Your task to perform on an android device: Go to battery settings Image 0: 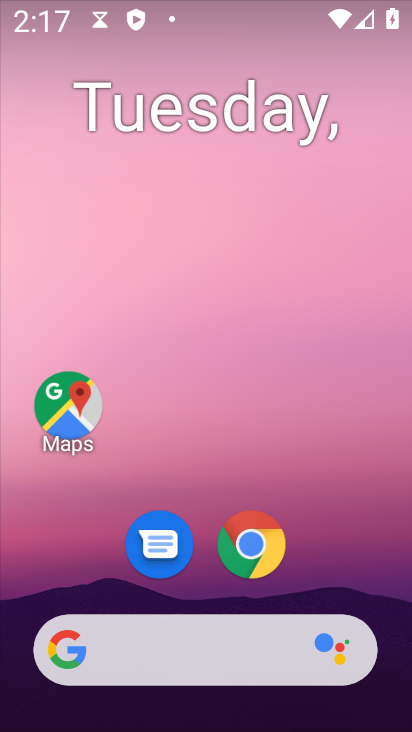
Step 0: drag from (316, 551) to (284, 8)
Your task to perform on an android device: Go to battery settings Image 1: 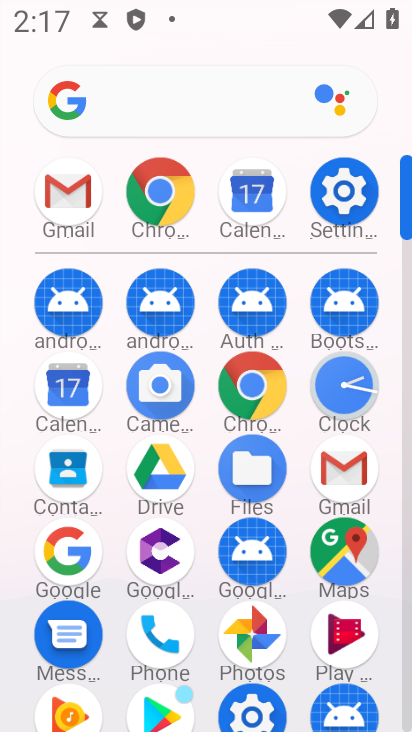
Step 1: drag from (13, 562) to (13, 303)
Your task to perform on an android device: Go to battery settings Image 2: 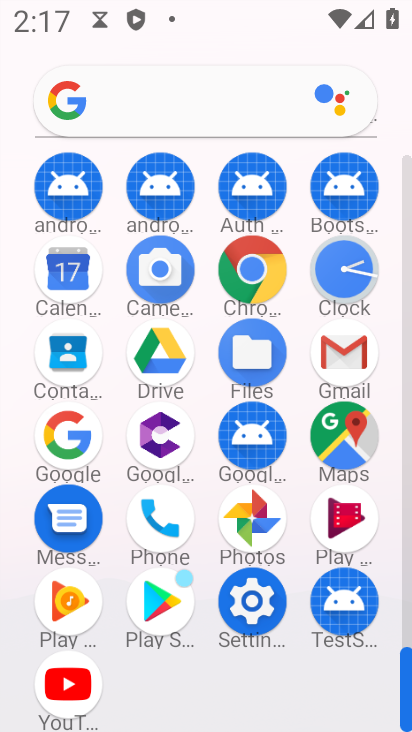
Step 2: click (253, 597)
Your task to perform on an android device: Go to battery settings Image 3: 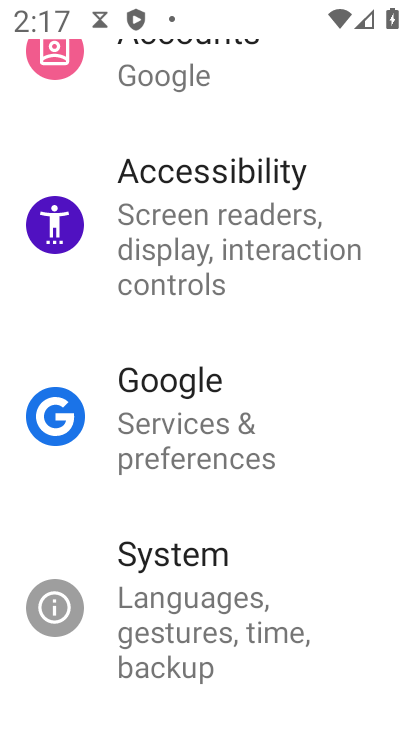
Step 3: drag from (266, 197) to (262, 633)
Your task to perform on an android device: Go to battery settings Image 4: 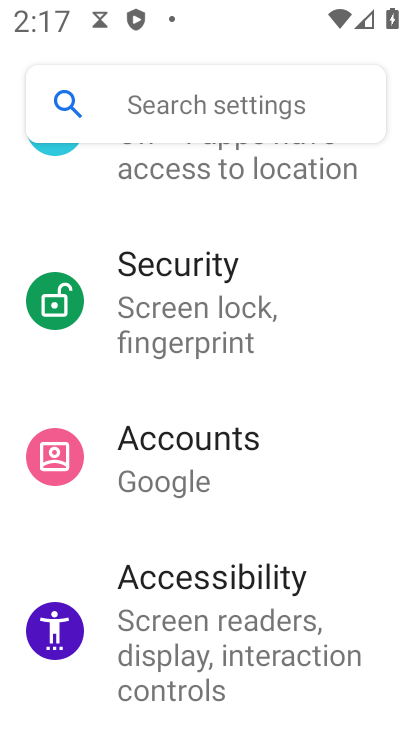
Step 4: drag from (267, 199) to (254, 622)
Your task to perform on an android device: Go to battery settings Image 5: 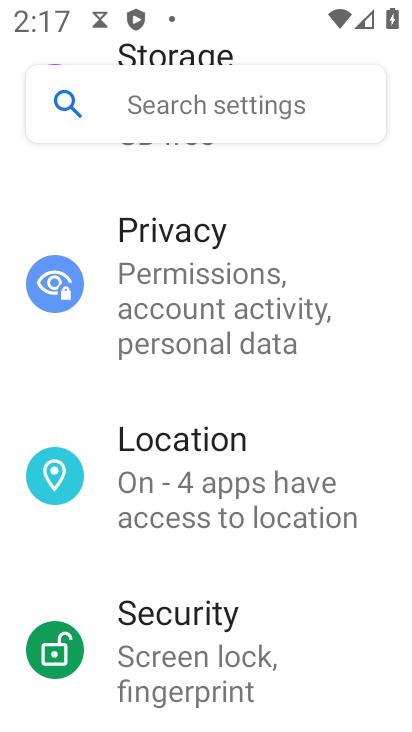
Step 5: drag from (276, 219) to (270, 628)
Your task to perform on an android device: Go to battery settings Image 6: 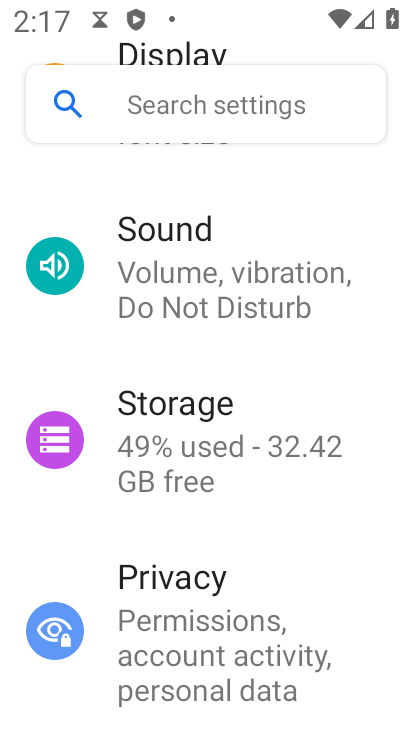
Step 6: drag from (272, 309) to (266, 618)
Your task to perform on an android device: Go to battery settings Image 7: 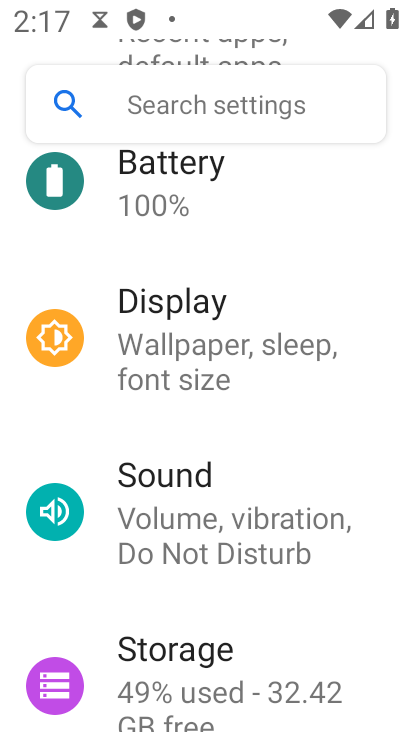
Step 7: drag from (286, 315) to (270, 573)
Your task to perform on an android device: Go to battery settings Image 8: 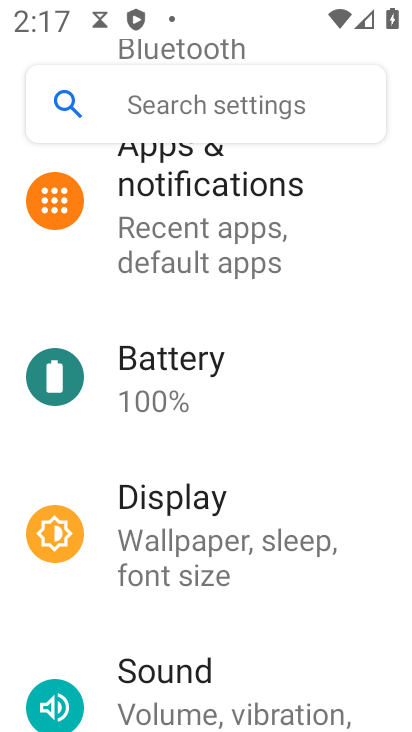
Step 8: click (195, 363)
Your task to perform on an android device: Go to battery settings Image 9: 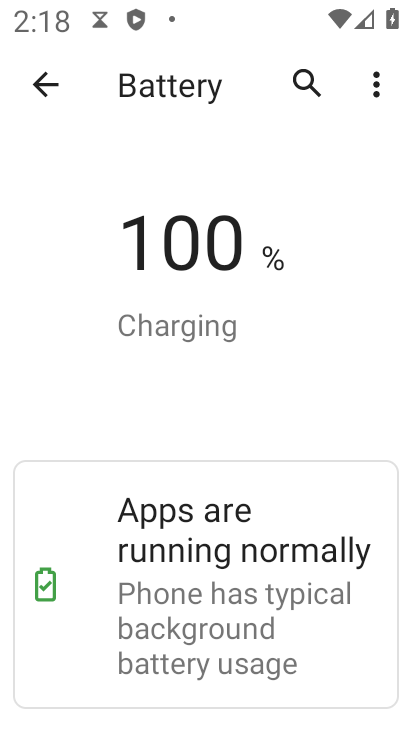
Step 9: task complete